Your task to perform on an android device: snooze an email in the gmail app Image 0: 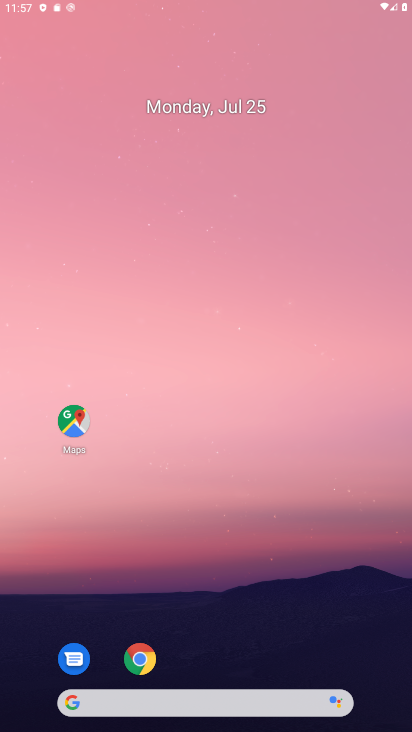
Step 0: press home button
Your task to perform on an android device: snooze an email in the gmail app Image 1: 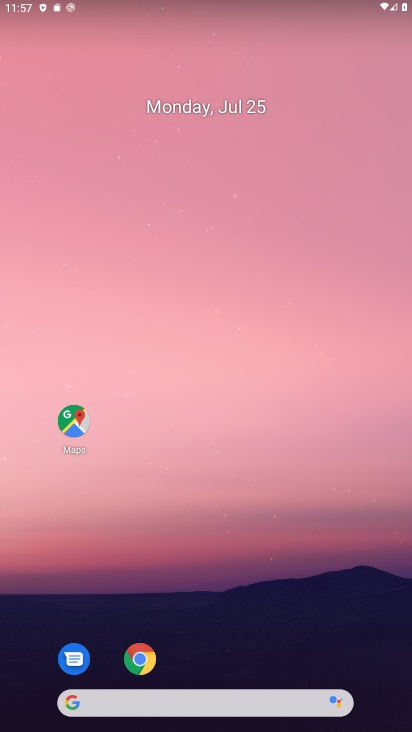
Step 1: click (62, 433)
Your task to perform on an android device: snooze an email in the gmail app Image 2: 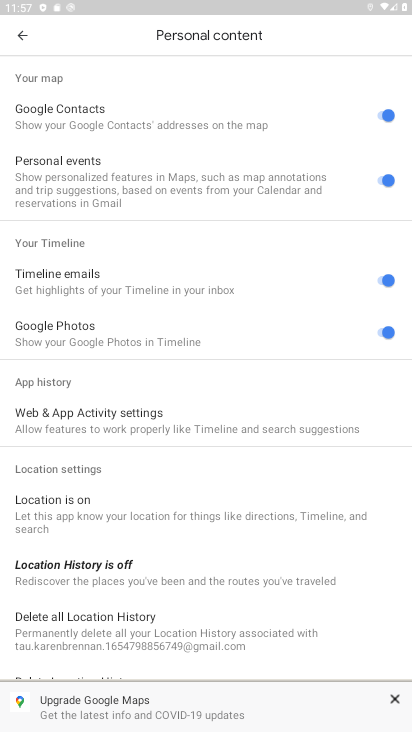
Step 2: press home button
Your task to perform on an android device: snooze an email in the gmail app Image 3: 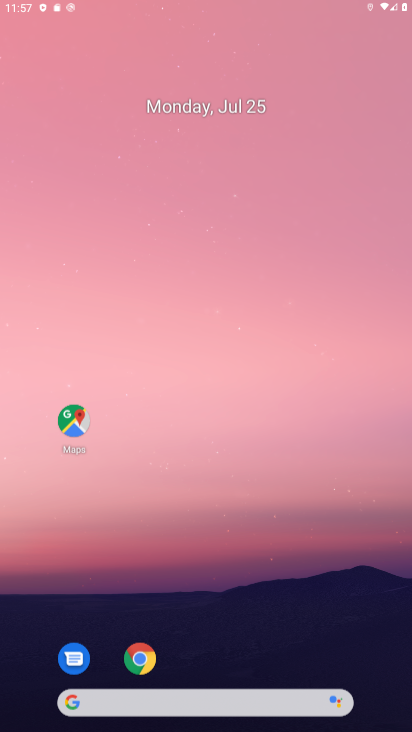
Step 3: drag from (226, 586) to (230, 182)
Your task to perform on an android device: snooze an email in the gmail app Image 4: 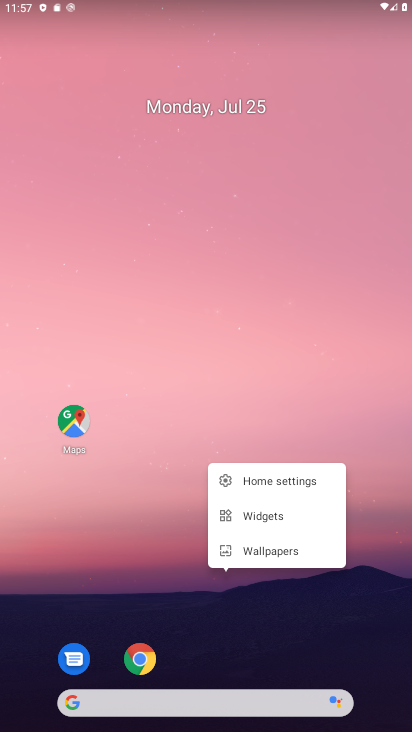
Step 4: click (172, 478)
Your task to perform on an android device: snooze an email in the gmail app Image 5: 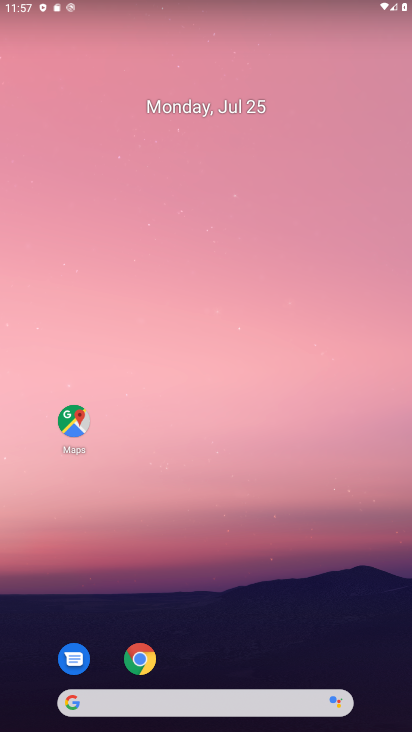
Step 5: drag from (301, 622) to (280, 4)
Your task to perform on an android device: snooze an email in the gmail app Image 6: 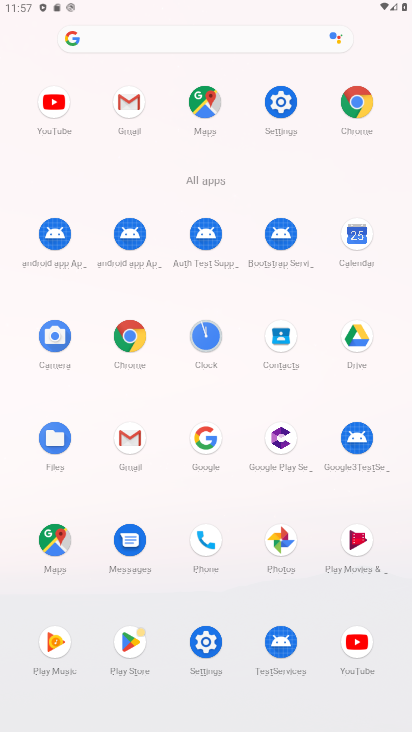
Step 6: click (115, 111)
Your task to perform on an android device: snooze an email in the gmail app Image 7: 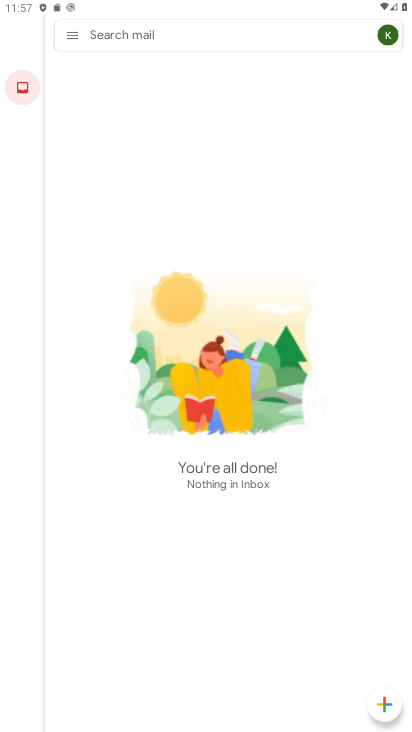
Step 7: click (63, 30)
Your task to perform on an android device: snooze an email in the gmail app Image 8: 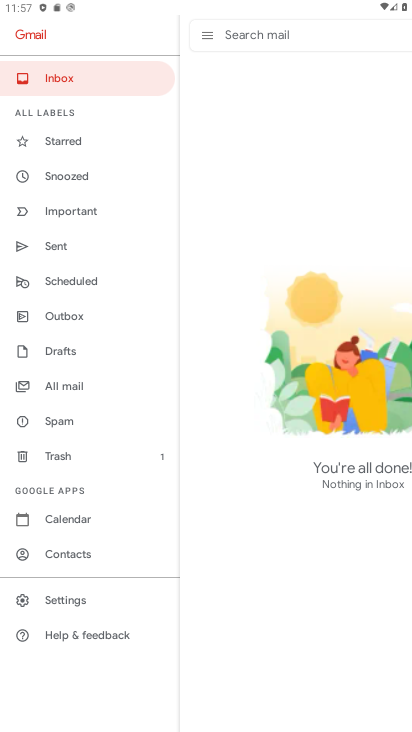
Step 8: click (60, 176)
Your task to perform on an android device: snooze an email in the gmail app Image 9: 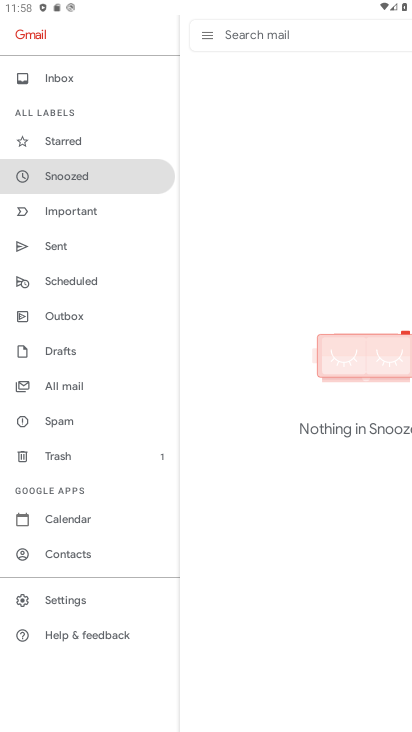
Step 9: task complete